Your task to perform on an android device: set default search engine in the chrome app Image 0: 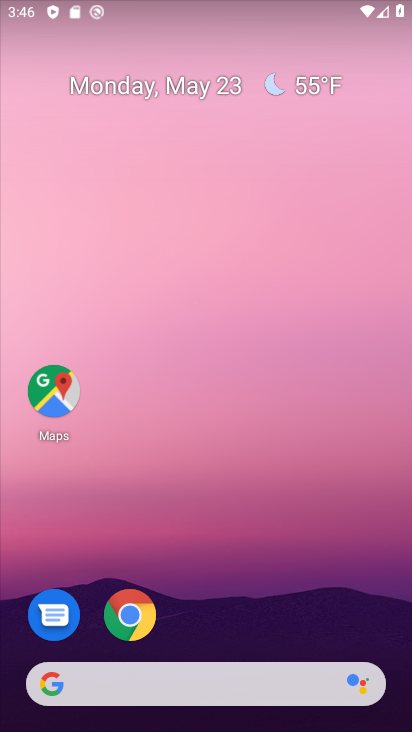
Step 0: drag from (369, 636) to (358, 119)
Your task to perform on an android device: set default search engine in the chrome app Image 1: 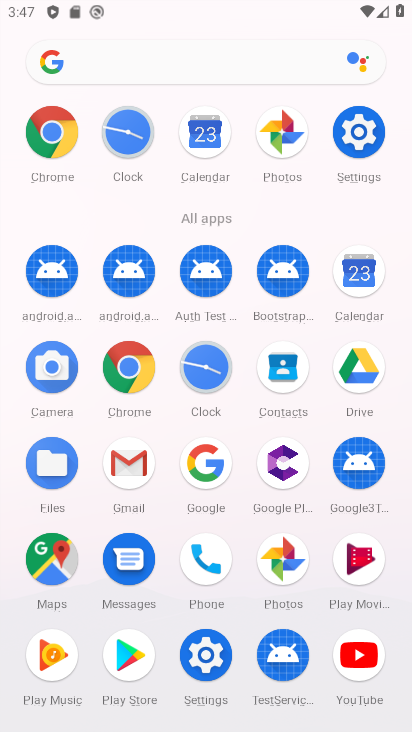
Step 1: click (133, 366)
Your task to perform on an android device: set default search engine in the chrome app Image 2: 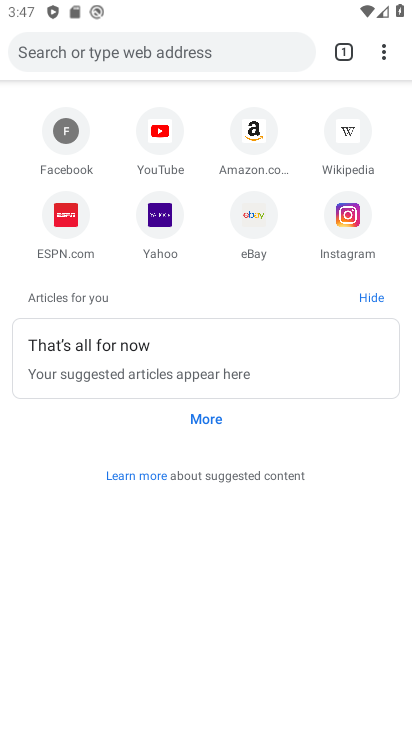
Step 2: click (382, 60)
Your task to perform on an android device: set default search engine in the chrome app Image 3: 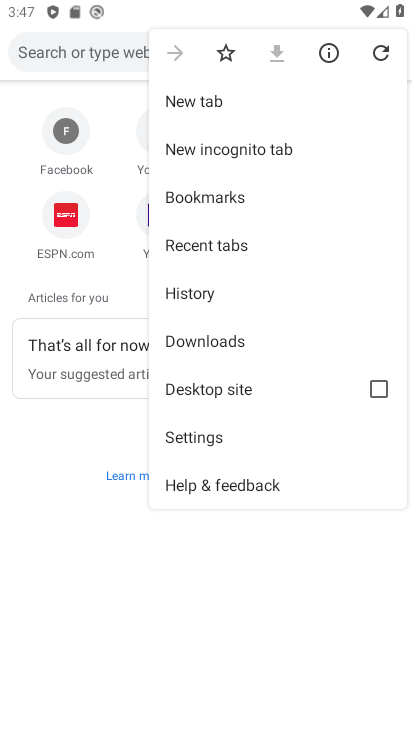
Step 3: click (180, 441)
Your task to perform on an android device: set default search engine in the chrome app Image 4: 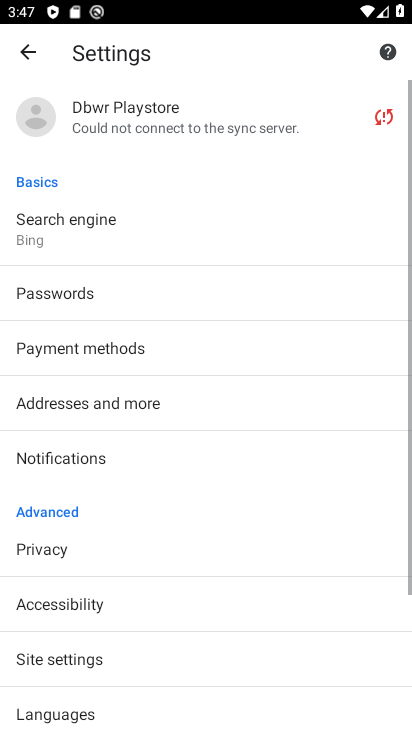
Step 4: drag from (258, 601) to (264, 482)
Your task to perform on an android device: set default search engine in the chrome app Image 5: 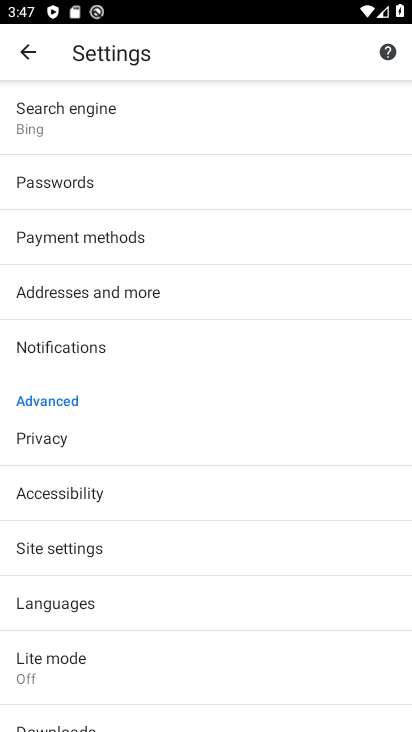
Step 5: drag from (250, 623) to (269, 491)
Your task to perform on an android device: set default search engine in the chrome app Image 6: 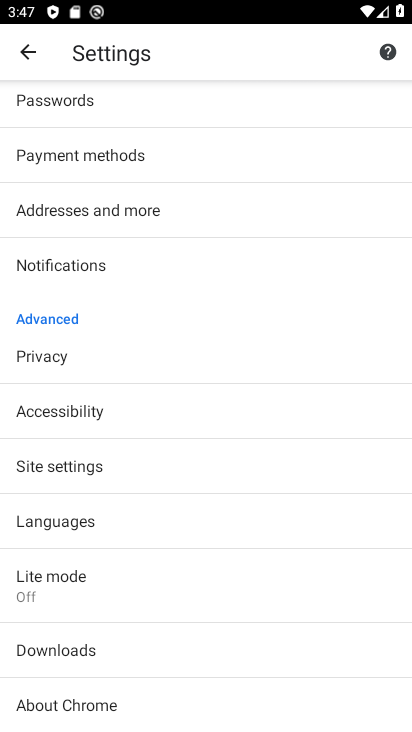
Step 6: drag from (257, 642) to (277, 481)
Your task to perform on an android device: set default search engine in the chrome app Image 7: 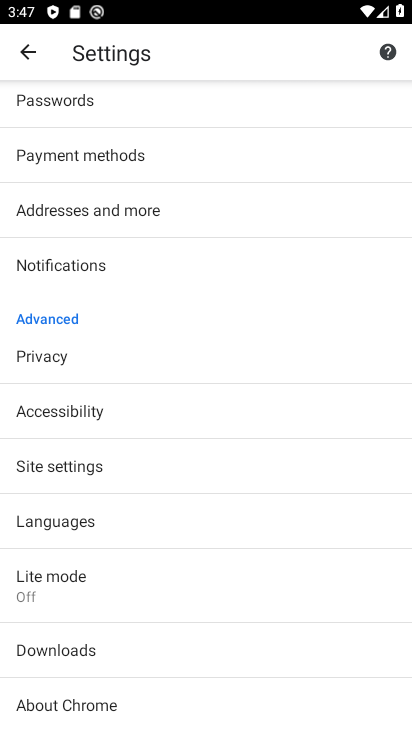
Step 7: drag from (279, 347) to (249, 489)
Your task to perform on an android device: set default search engine in the chrome app Image 8: 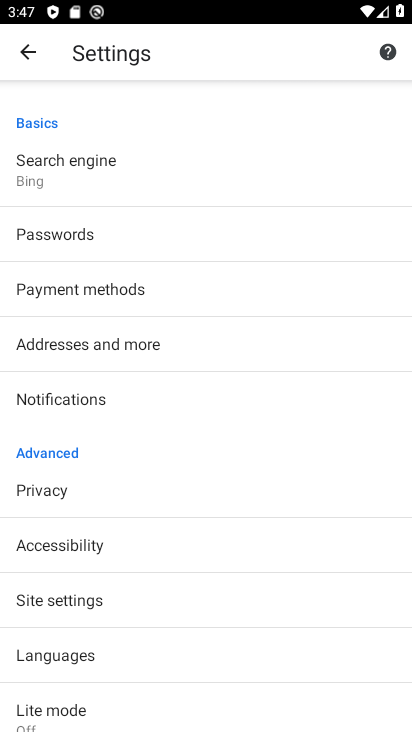
Step 8: drag from (262, 291) to (247, 419)
Your task to perform on an android device: set default search engine in the chrome app Image 9: 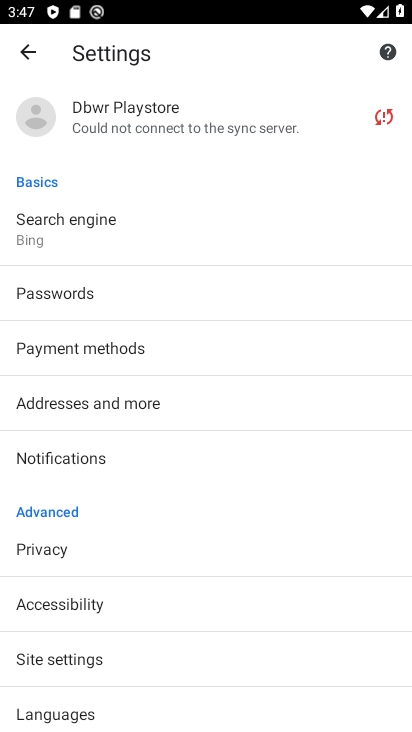
Step 9: drag from (247, 320) to (248, 488)
Your task to perform on an android device: set default search engine in the chrome app Image 10: 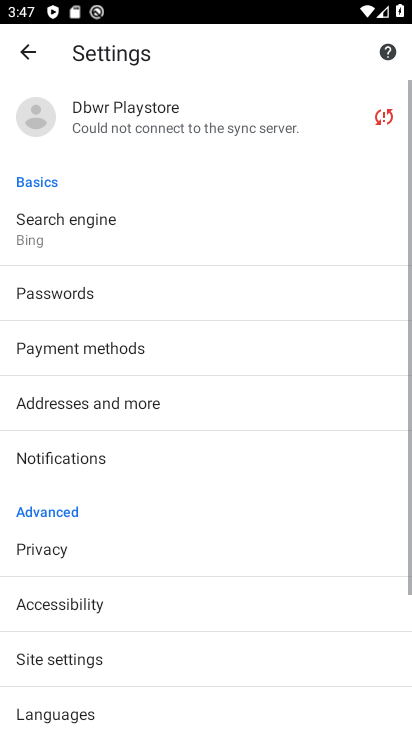
Step 10: click (156, 230)
Your task to perform on an android device: set default search engine in the chrome app Image 11: 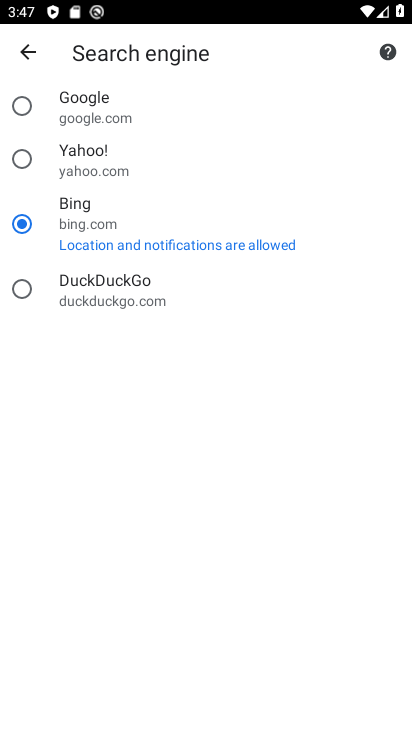
Step 11: click (48, 111)
Your task to perform on an android device: set default search engine in the chrome app Image 12: 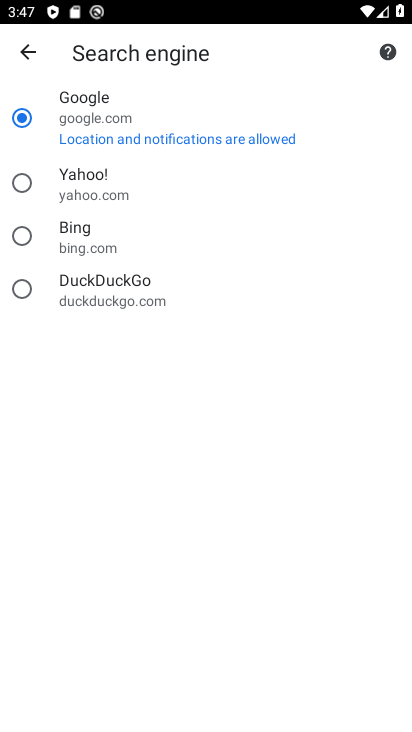
Step 12: task complete